Your task to perform on an android device: change the clock display to digital Image 0: 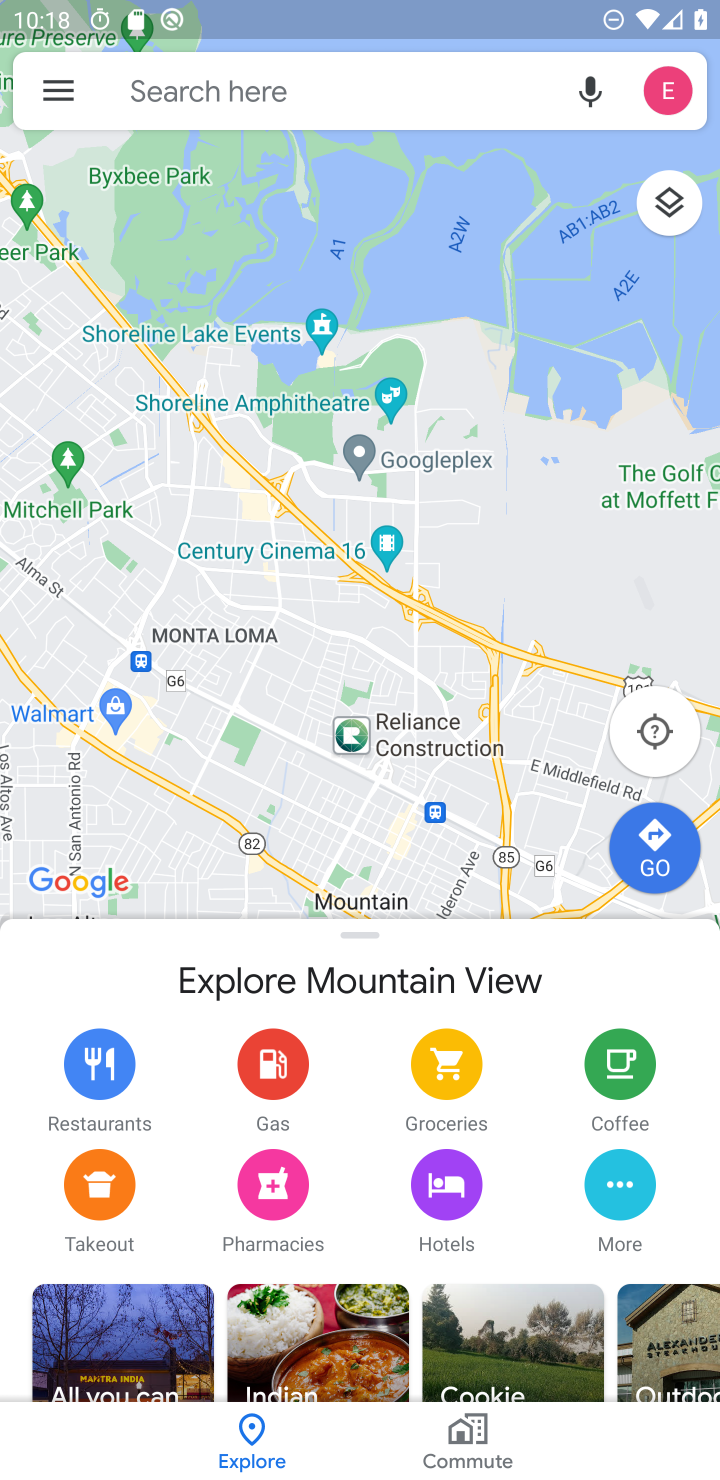
Step 0: press home button
Your task to perform on an android device: change the clock display to digital Image 1: 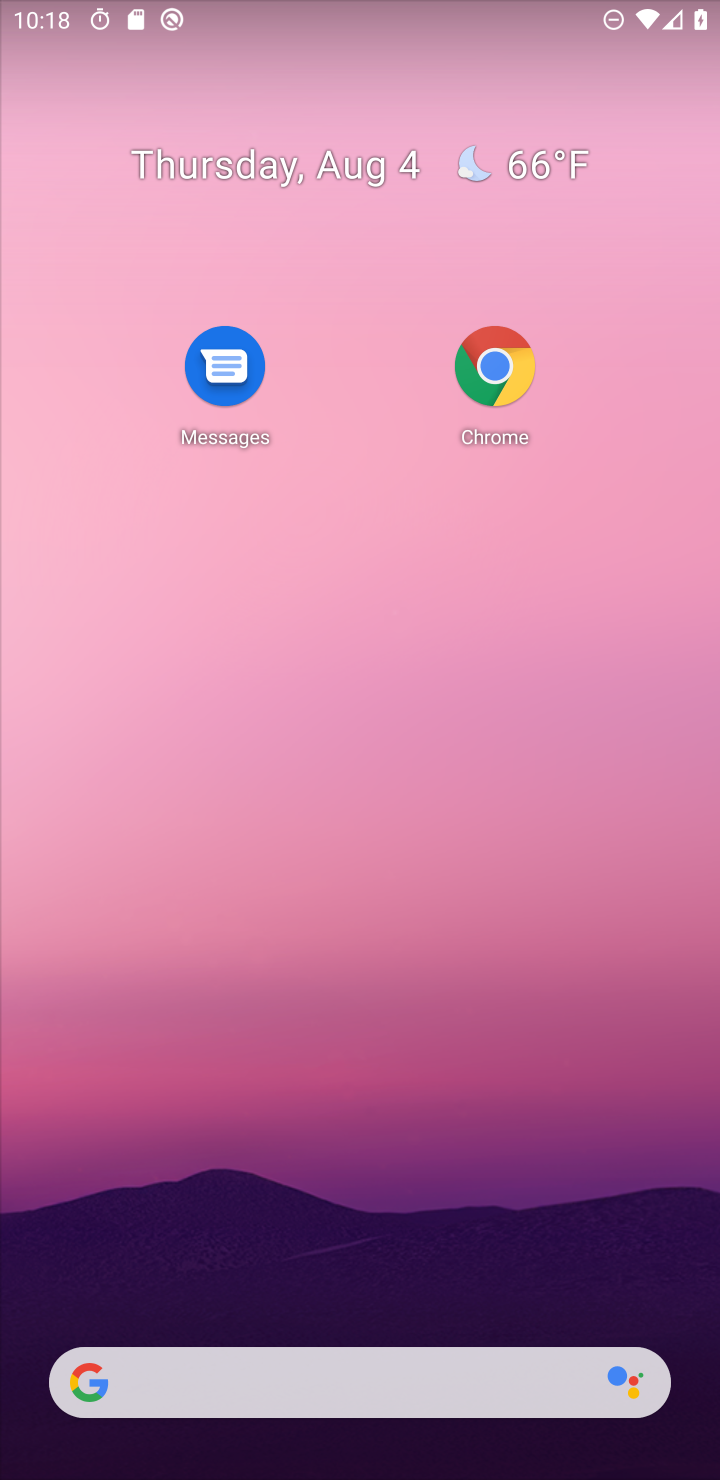
Step 1: drag from (335, 670) to (378, 491)
Your task to perform on an android device: change the clock display to digital Image 2: 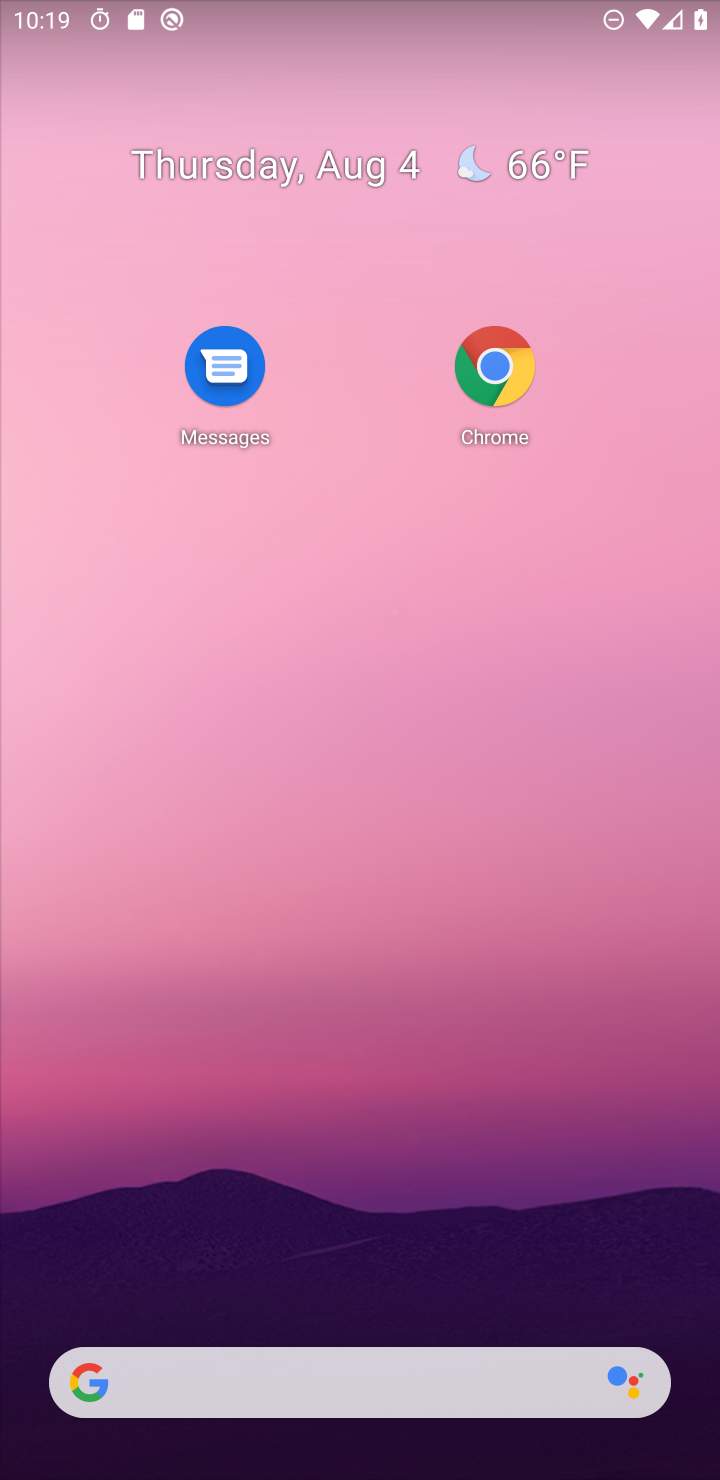
Step 2: drag from (370, 1166) to (235, 289)
Your task to perform on an android device: change the clock display to digital Image 3: 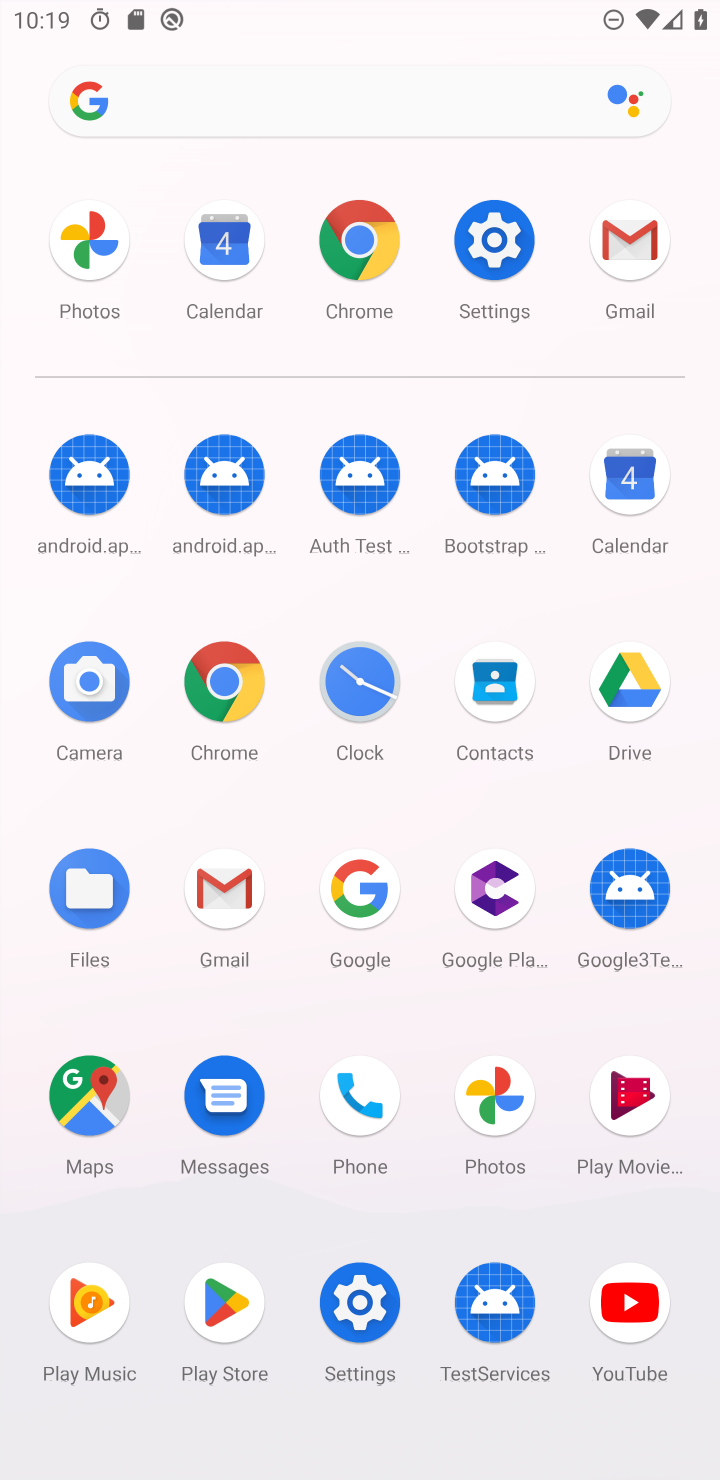
Step 3: click (344, 700)
Your task to perform on an android device: change the clock display to digital Image 4: 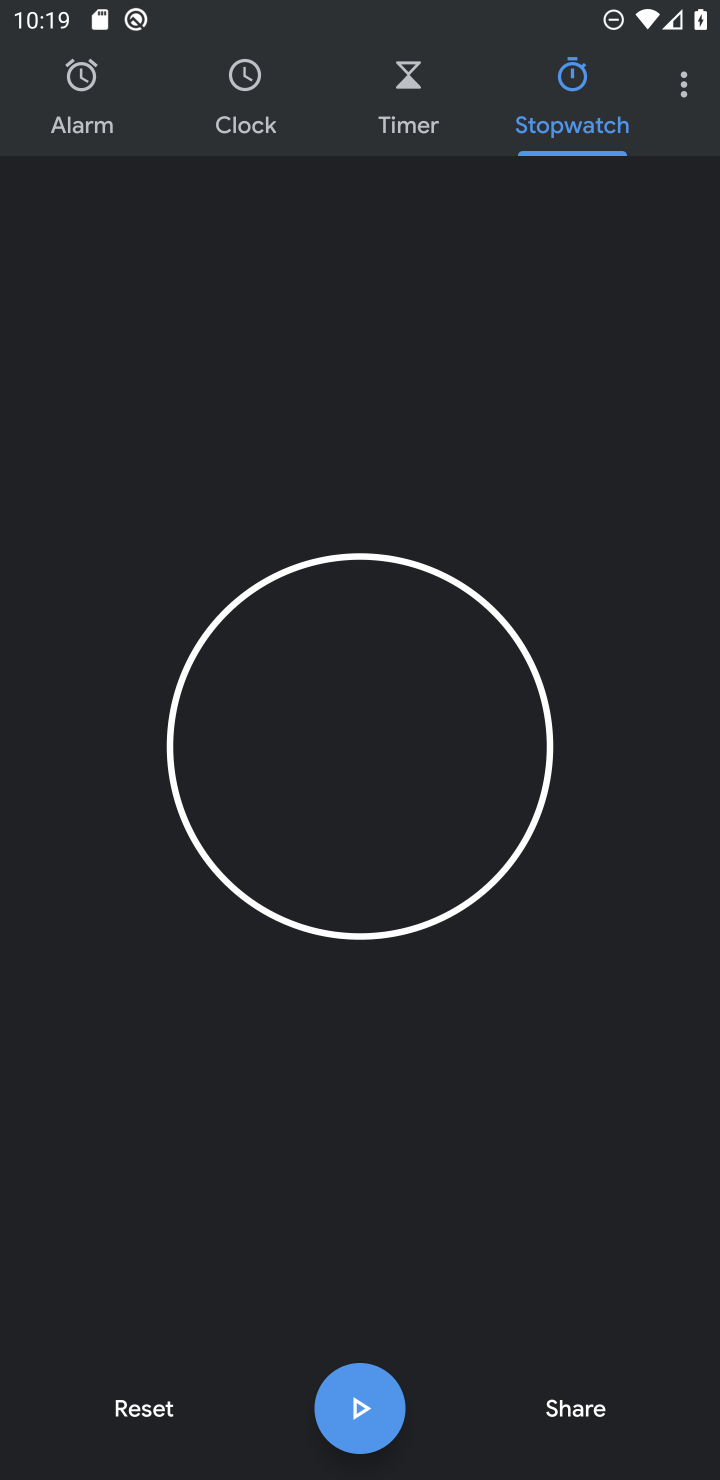
Step 4: click (673, 106)
Your task to perform on an android device: change the clock display to digital Image 5: 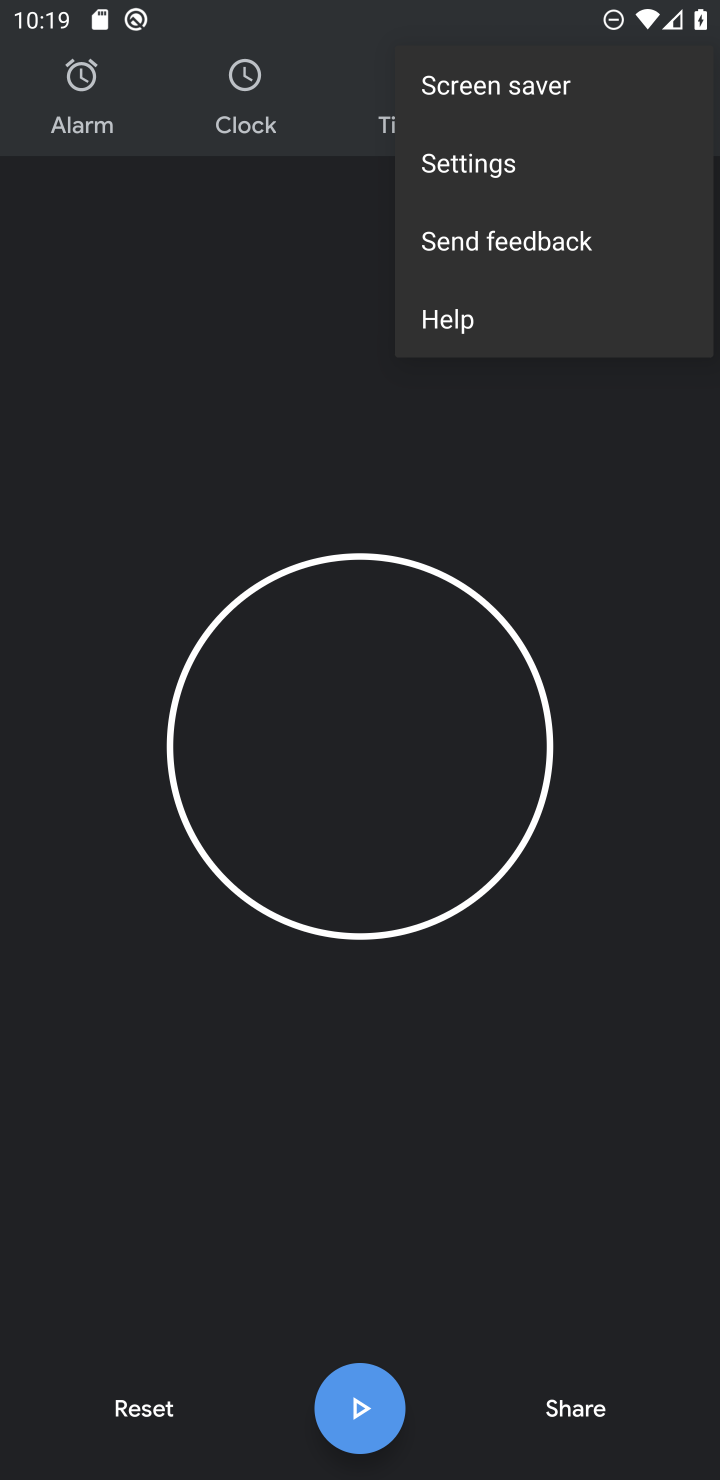
Step 5: click (544, 191)
Your task to perform on an android device: change the clock display to digital Image 6: 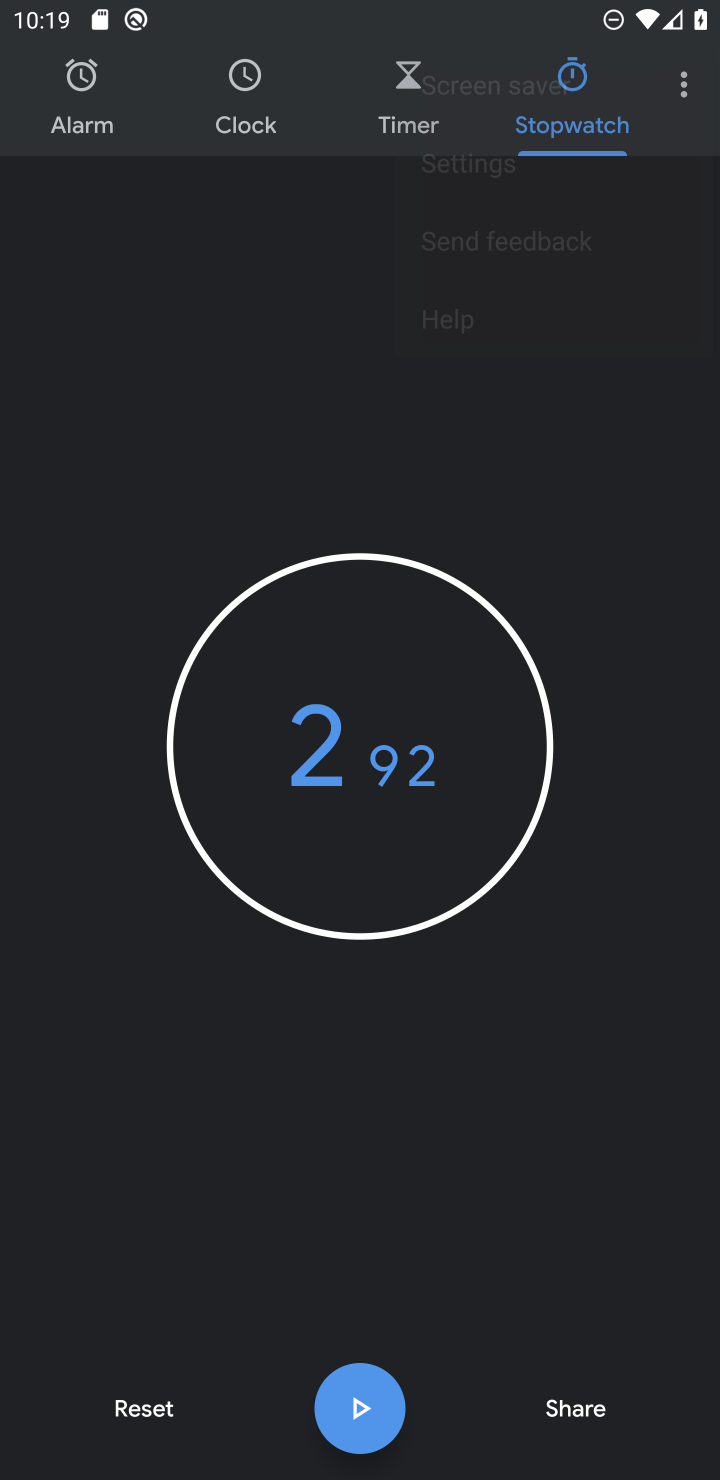
Step 6: click (544, 177)
Your task to perform on an android device: change the clock display to digital Image 7: 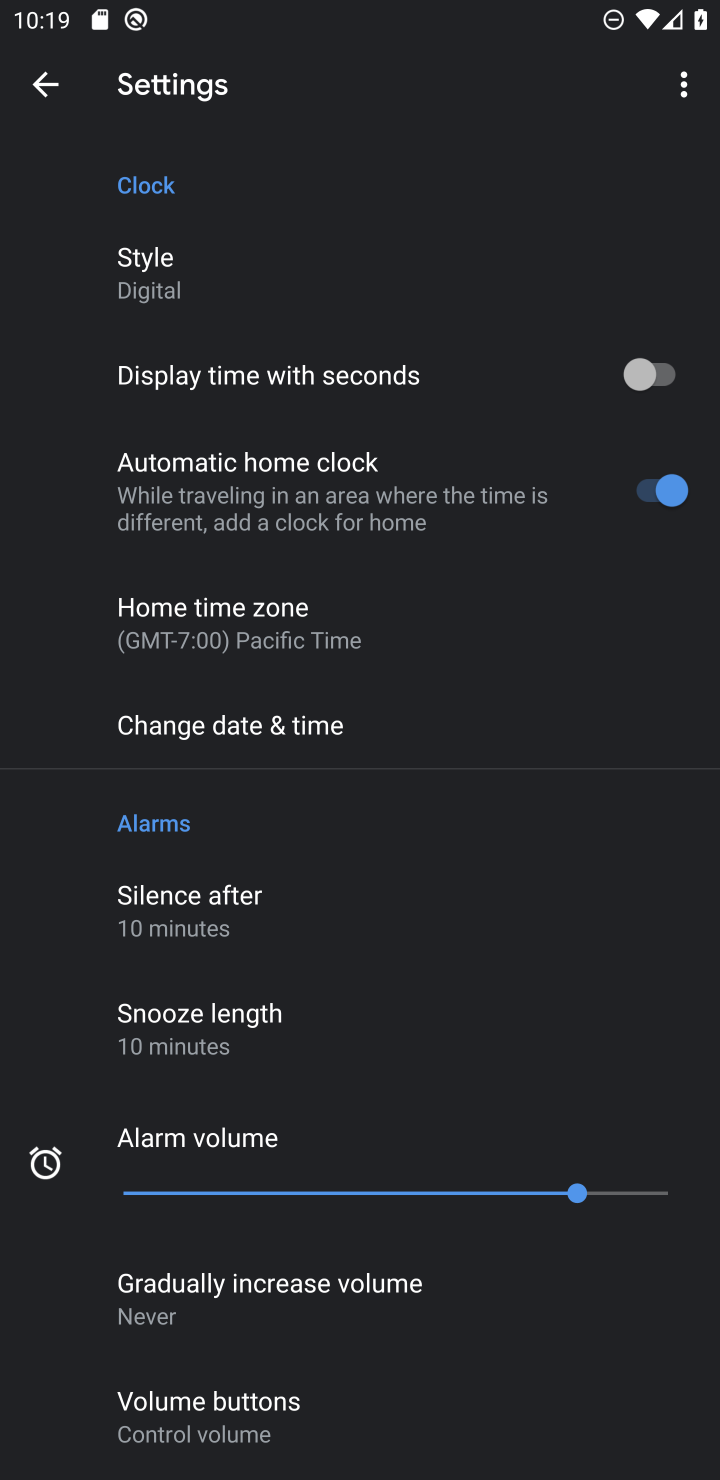
Step 7: click (237, 294)
Your task to perform on an android device: change the clock display to digital Image 8: 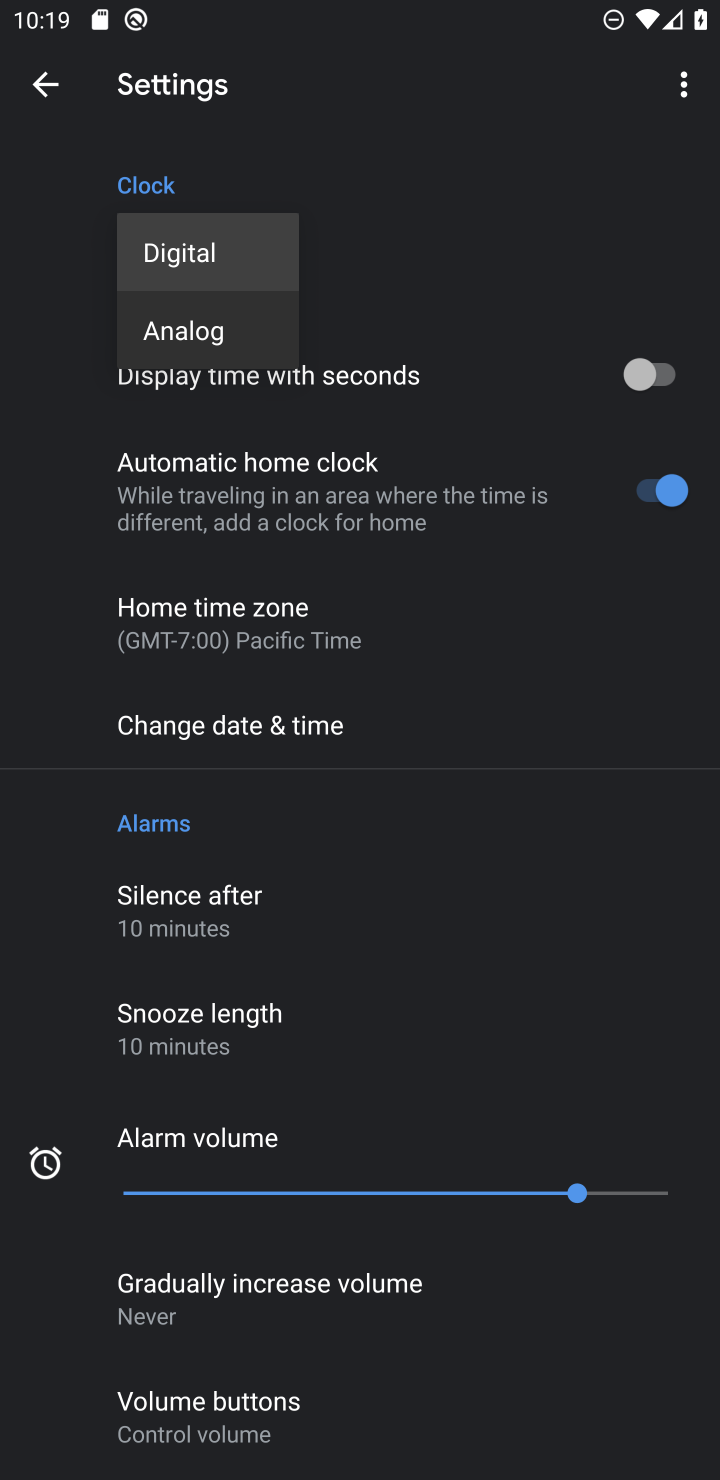
Step 8: click (239, 284)
Your task to perform on an android device: change the clock display to digital Image 9: 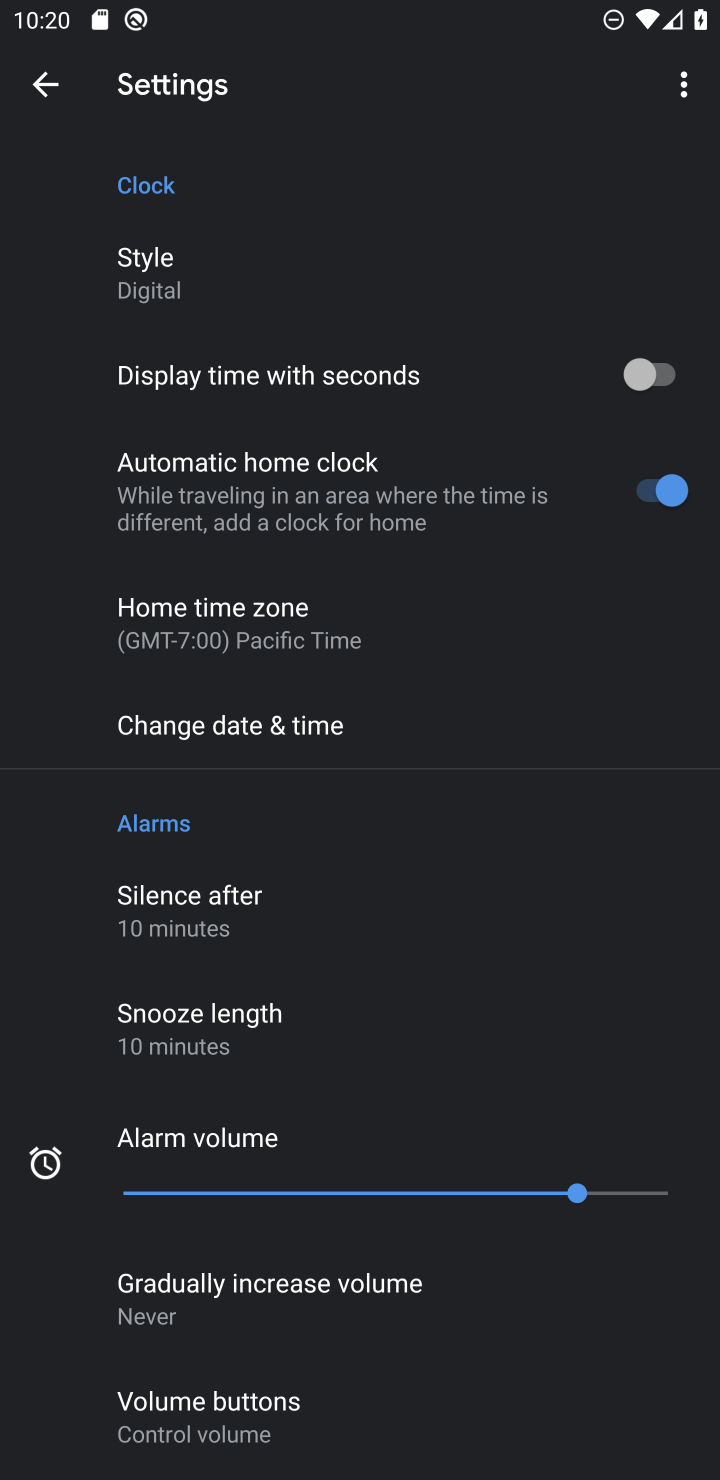
Step 9: task complete